Your task to perform on an android device: turn off airplane mode Image 0: 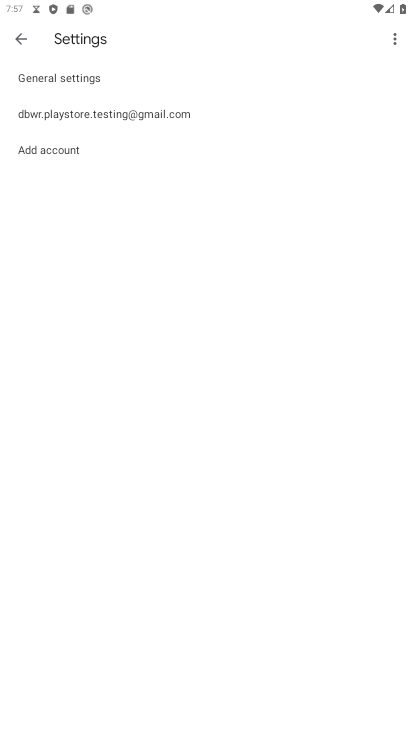
Step 0: press home button
Your task to perform on an android device: turn off airplane mode Image 1: 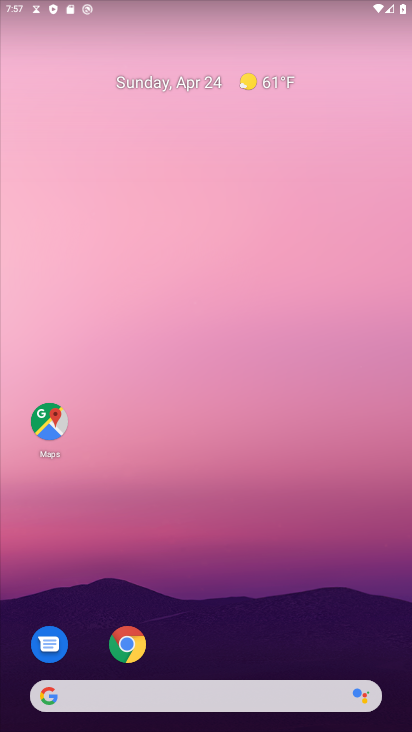
Step 1: drag from (219, 647) to (187, 38)
Your task to perform on an android device: turn off airplane mode Image 2: 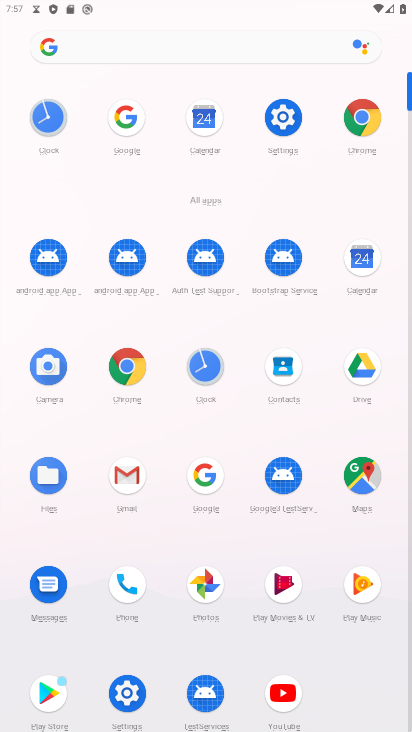
Step 2: click (142, 691)
Your task to perform on an android device: turn off airplane mode Image 3: 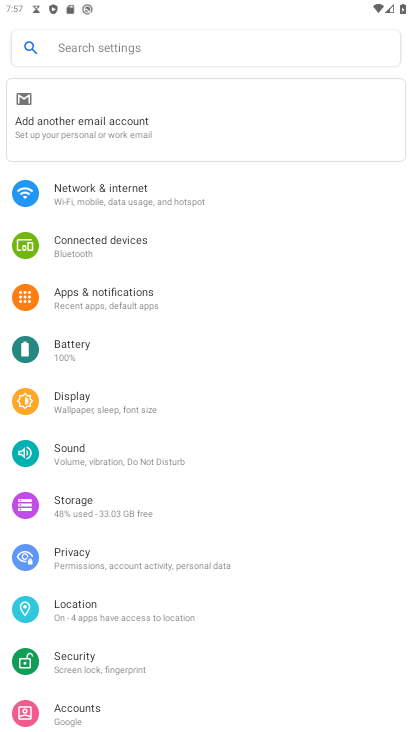
Step 3: click (86, 204)
Your task to perform on an android device: turn off airplane mode Image 4: 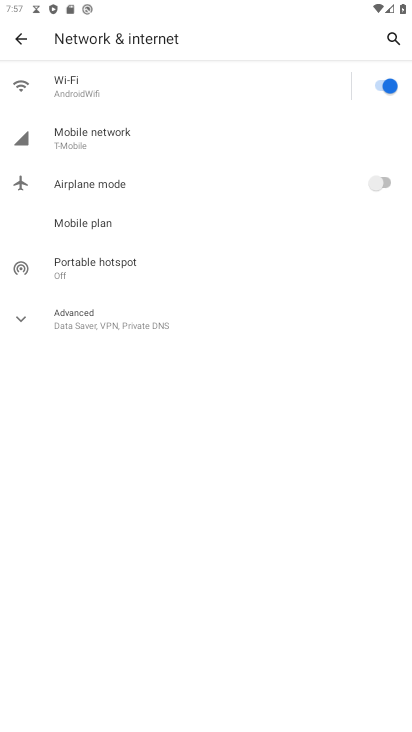
Step 4: task complete